Your task to perform on an android device: remove spam from my inbox in the gmail app Image 0: 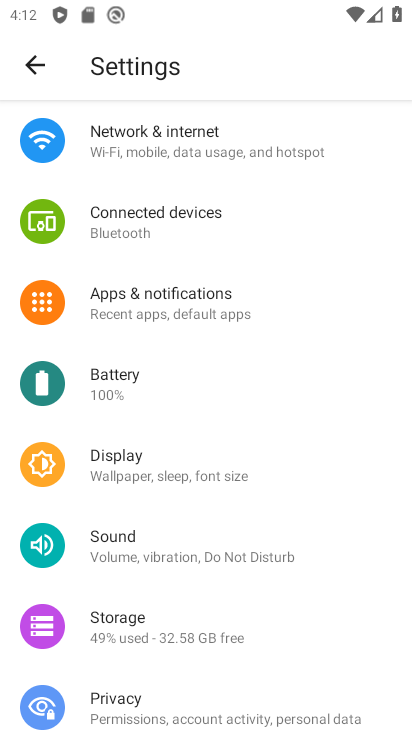
Step 0: press home button
Your task to perform on an android device: remove spam from my inbox in the gmail app Image 1: 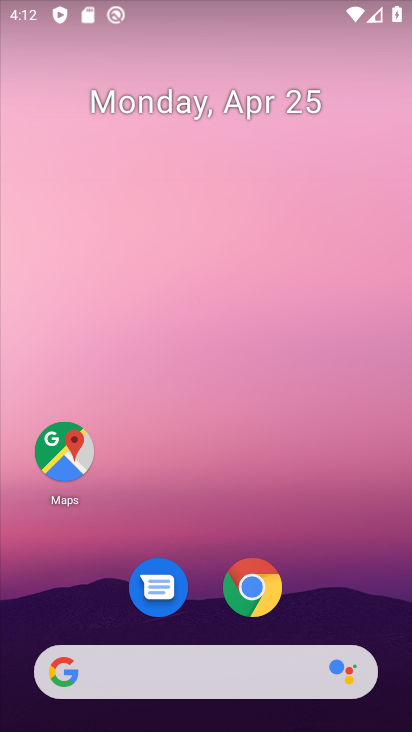
Step 1: drag from (369, 537) to (368, 42)
Your task to perform on an android device: remove spam from my inbox in the gmail app Image 2: 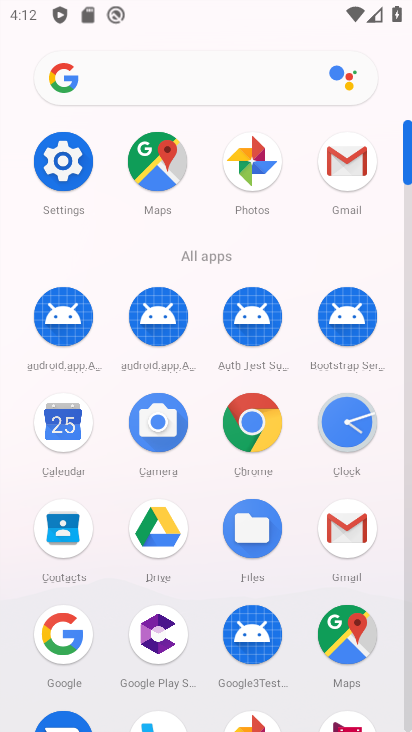
Step 2: click (340, 176)
Your task to perform on an android device: remove spam from my inbox in the gmail app Image 3: 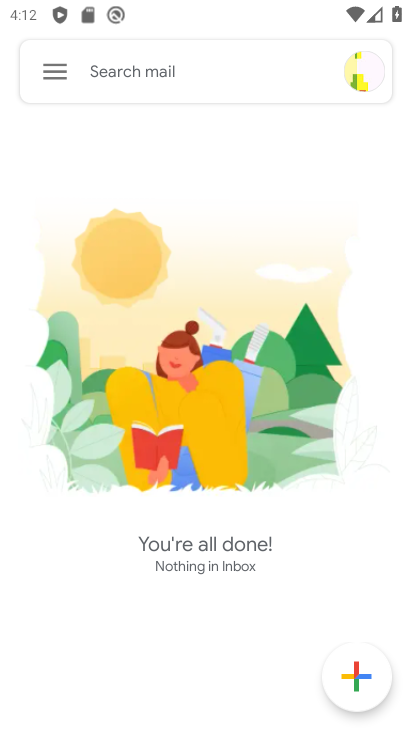
Step 3: click (47, 72)
Your task to perform on an android device: remove spam from my inbox in the gmail app Image 4: 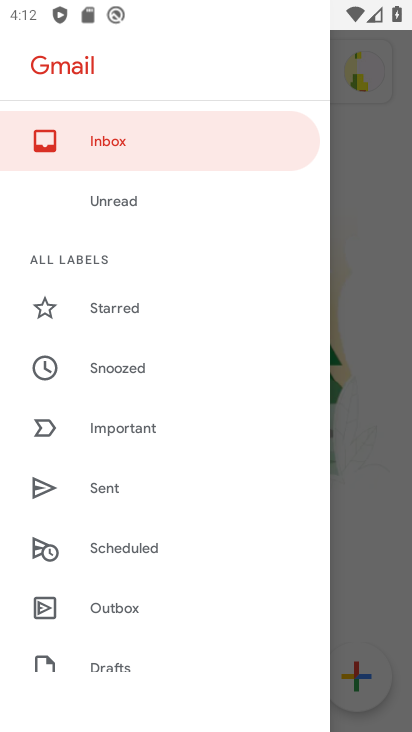
Step 4: drag from (179, 557) to (155, 403)
Your task to perform on an android device: remove spam from my inbox in the gmail app Image 5: 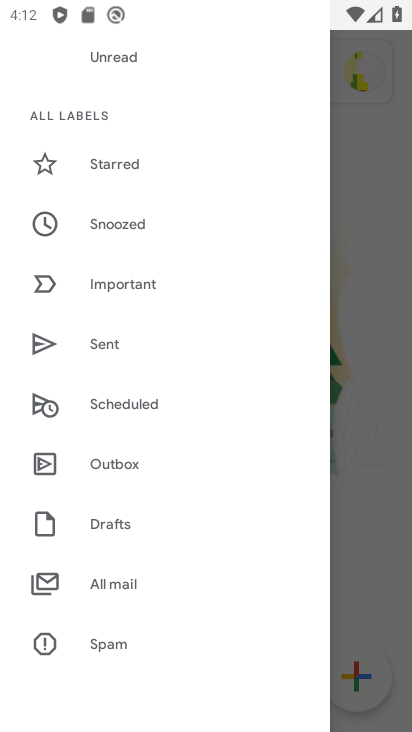
Step 5: click (55, 668)
Your task to perform on an android device: remove spam from my inbox in the gmail app Image 6: 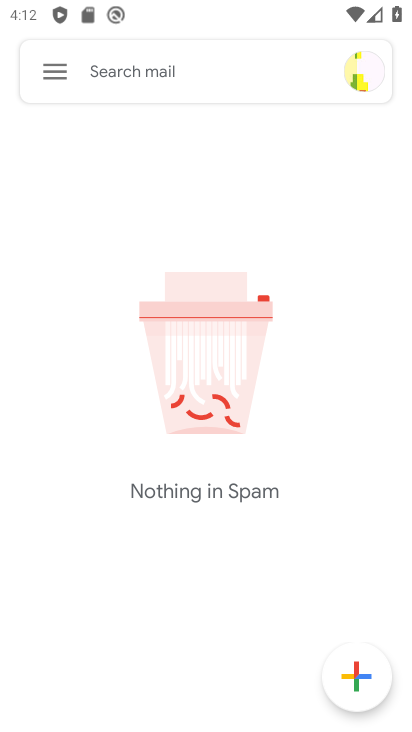
Step 6: task complete